Your task to perform on an android device: Set the phone to "Do not disturb". Image 0: 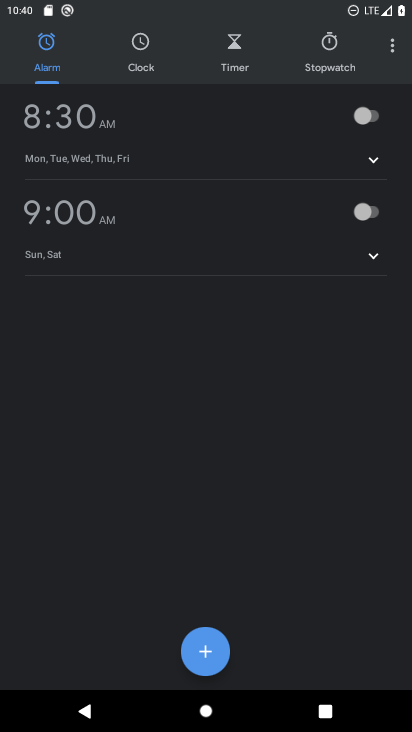
Step 0: press home button
Your task to perform on an android device: Set the phone to "Do not disturb". Image 1: 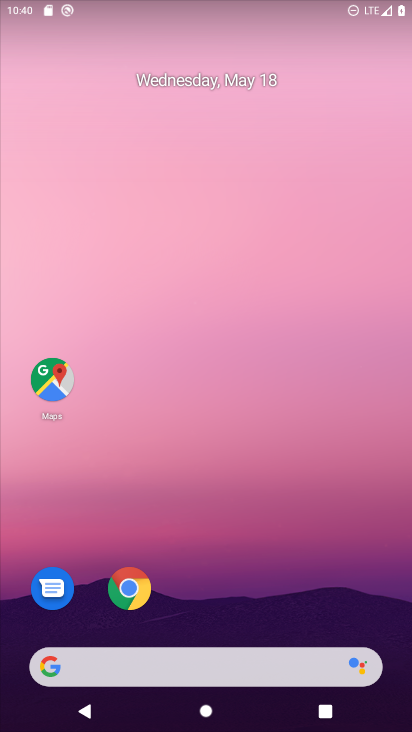
Step 1: drag from (343, 639) to (294, 5)
Your task to perform on an android device: Set the phone to "Do not disturb". Image 2: 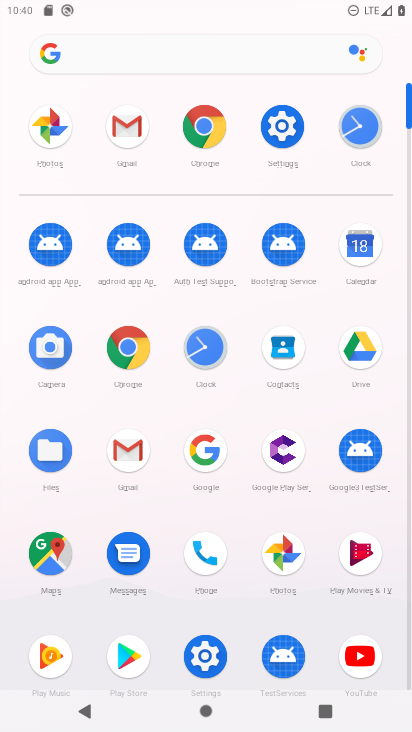
Step 2: click (276, 122)
Your task to perform on an android device: Set the phone to "Do not disturb". Image 3: 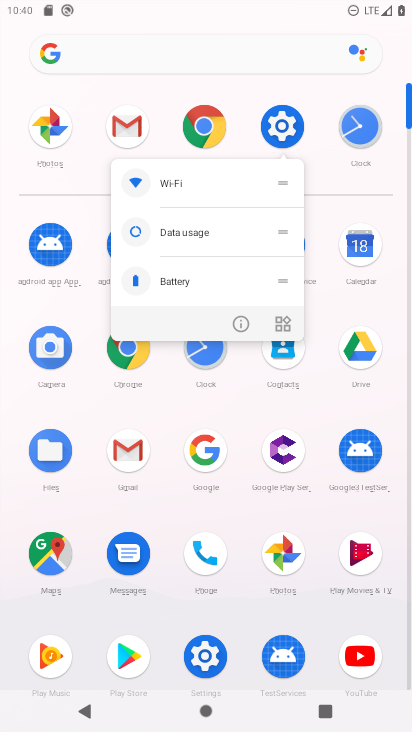
Step 3: click (276, 122)
Your task to perform on an android device: Set the phone to "Do not disturb". Image 4: 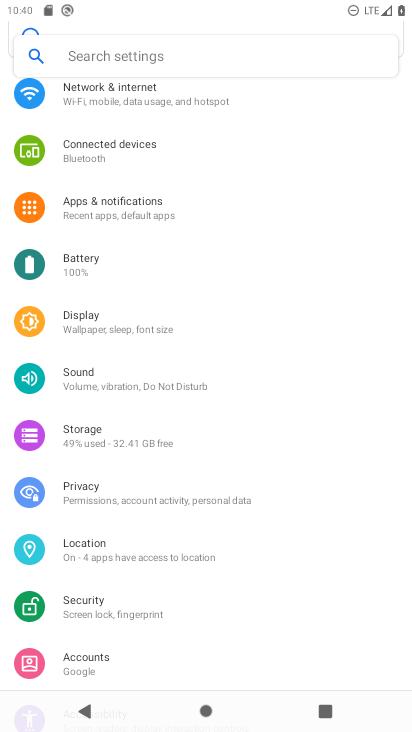
Step 4: click (84, 388)
Your task to perform on an android device: Set the phone to "Do not disturb". Image 5: 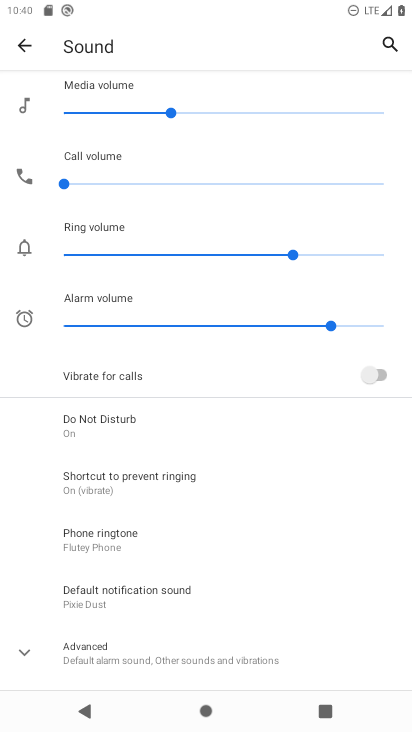
Step 5: click (84, 451)
Your task to perform on an android device: Set the phone to "Do not disturb". Image 6: 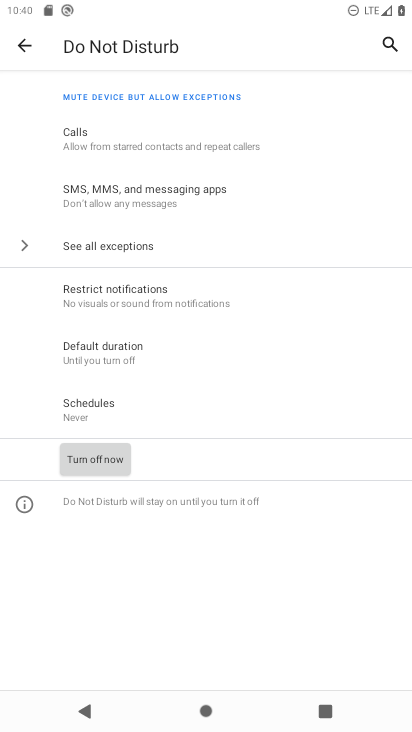
Step 6: task complete